Your task to perform on an android device: Open Chrome and go to settings Image 0: 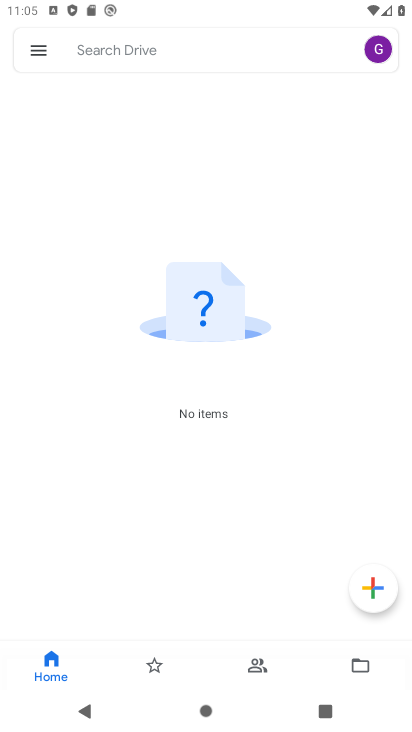
Step 0: press home button
Your task to perform on an android device: Open Chrome and go to settings Image 1: 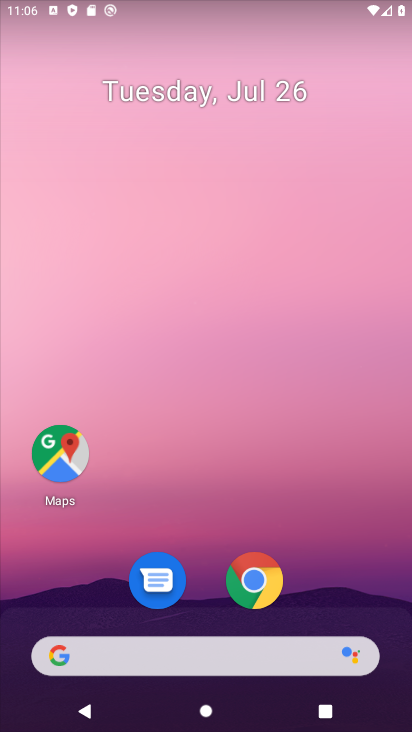
Step 1: click (242, 601)
Your task to perform on an android device: Open Chrome and go to settings Image 2: 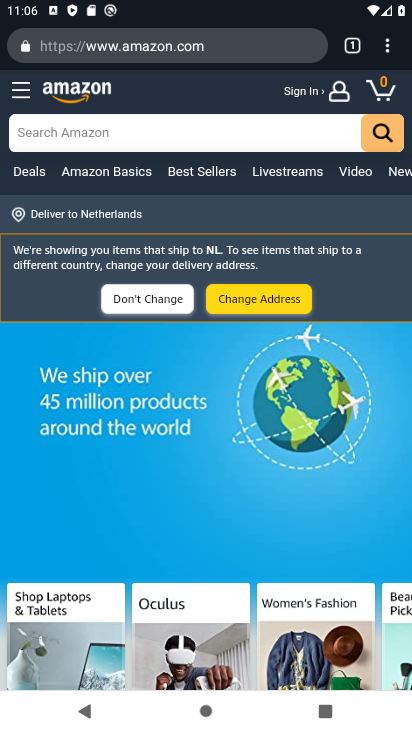
Step 2: click (393, 46)
Your task to perform on an android device: Open Chrome and go to settings Image 3: 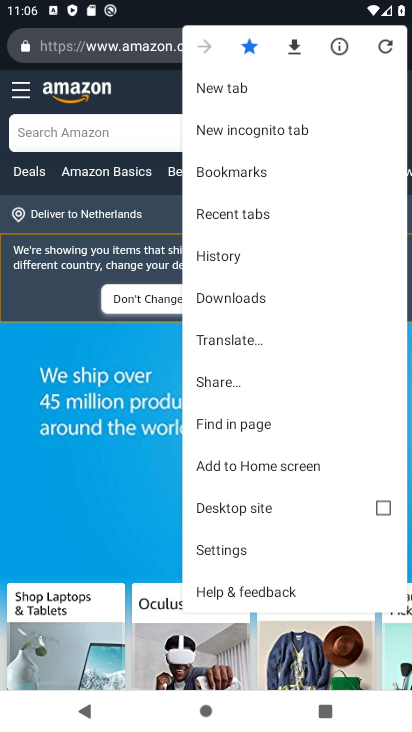
Step 3: click (225, 553)
Your task to perform on an android device: Open Chrome and go to settings Image 4: 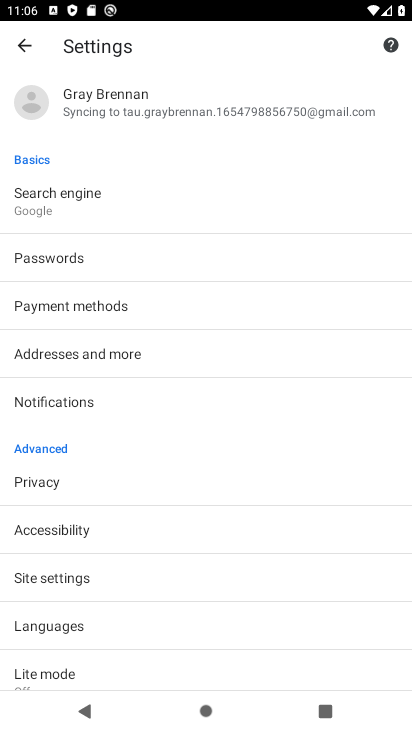
Step 4: task complete